Your task to perform on an android device: Toggle the flashlight Image 0: 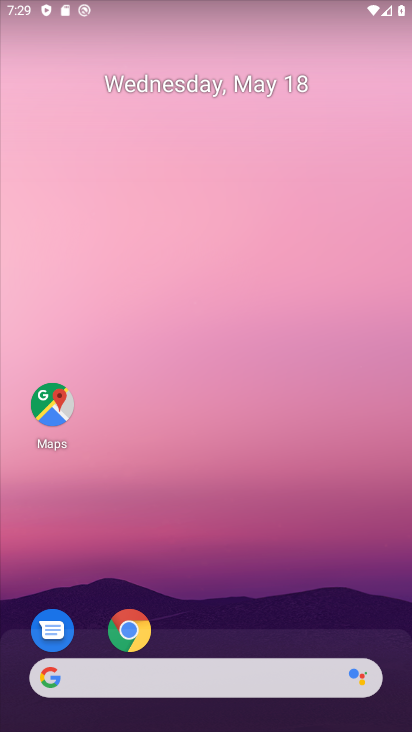
Step 0: drag from (209, 639) to (277, 41)
Your task to perform on an android device: Toggle the flashlight Image 1: 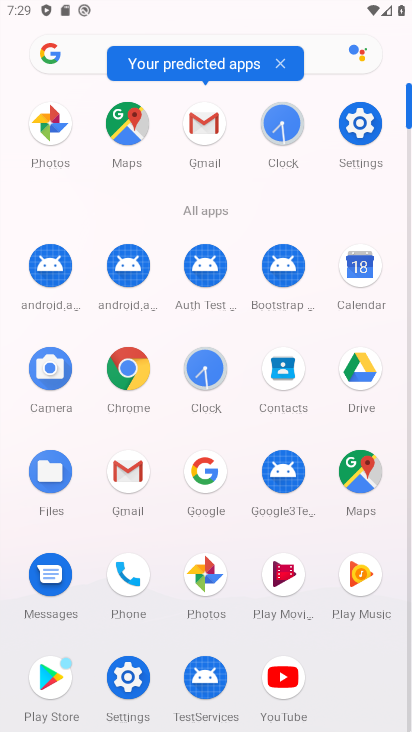
Step 1: click (362, 107)
Your task to perform on an android device: Toggle the flashlight Image 2: 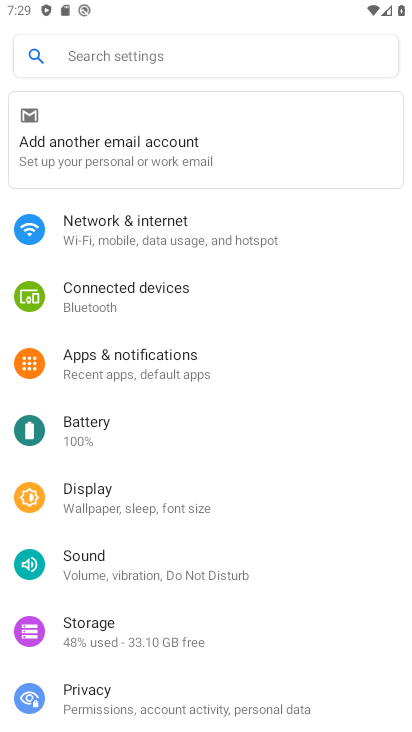
Step 2: task complete